Your task to perform on an android device: Empty the shopping cart on amazon.com. Image 0: 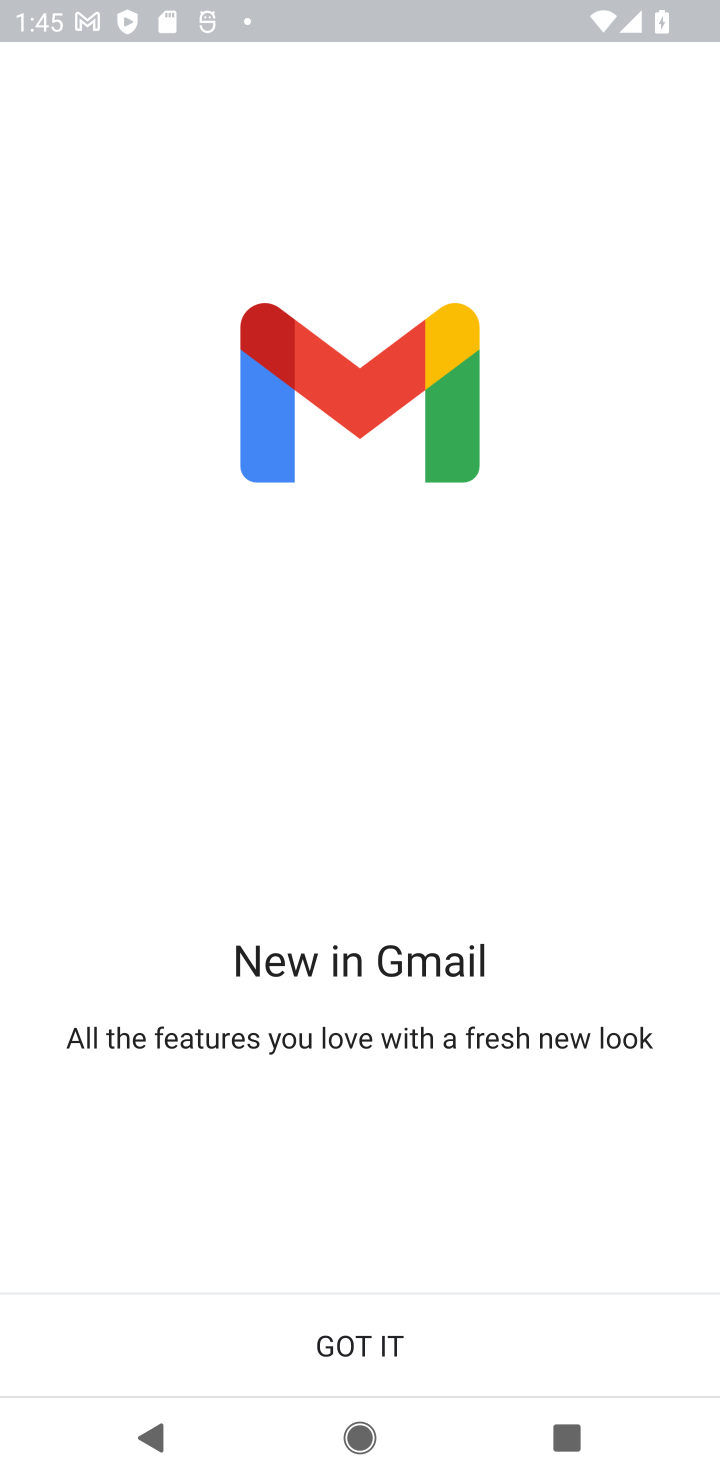
Step 0: press home button
Your task to perform on an android device: Empty the shopping cart on amazon.com. Image 1: 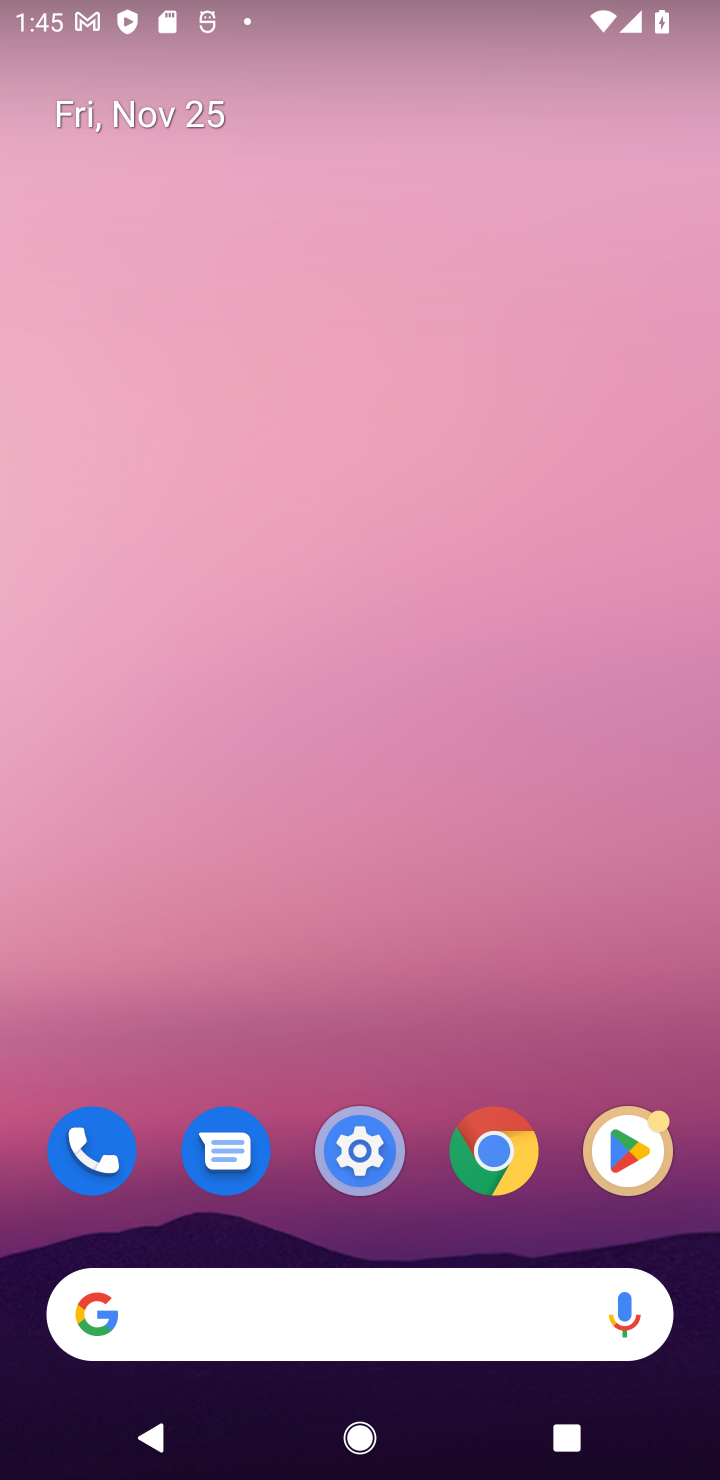
Step 1: click (396, 1338)
Your task to perform on an android device: Empty the shopping cart on amazon.com. Image 2: 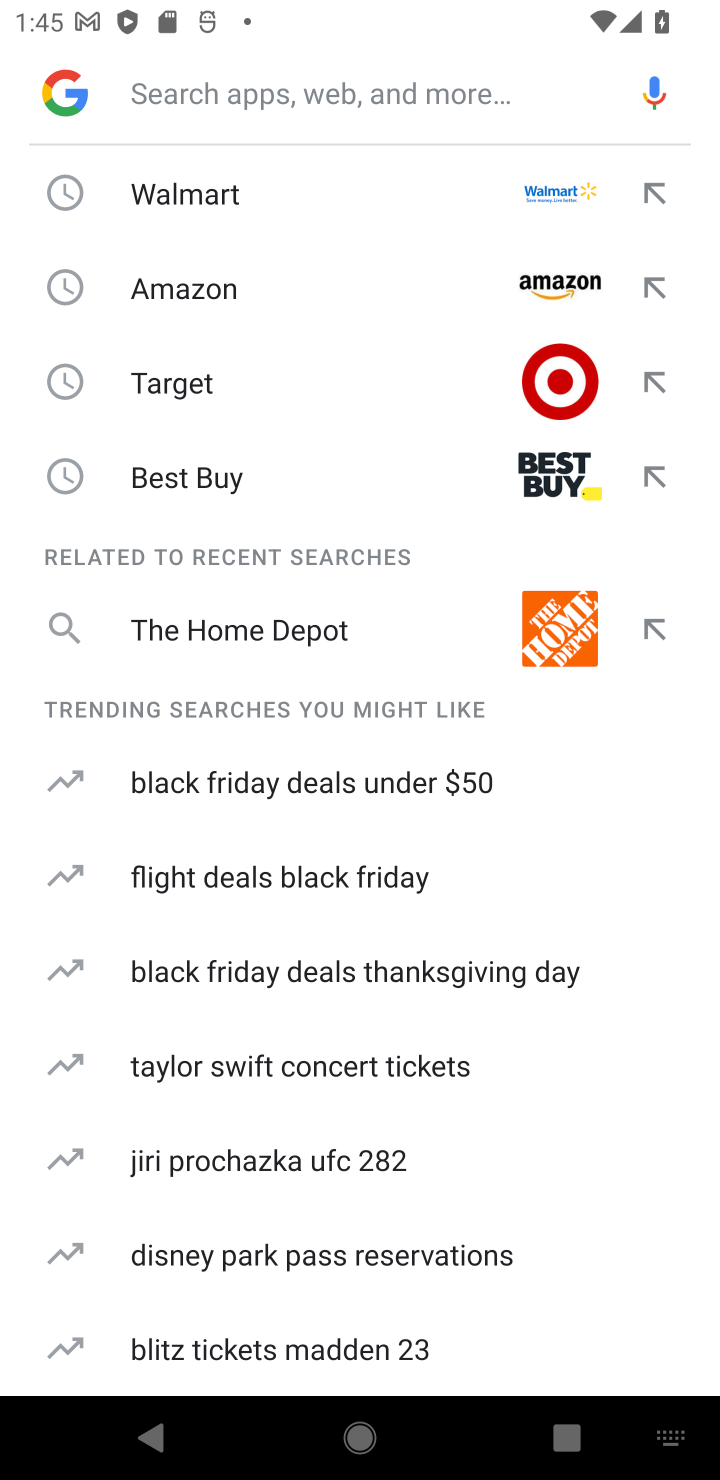
Step 2: click (183, 291)
Your task to perform on an android device: Empty the shopping cart on amazon.com. Image 3: 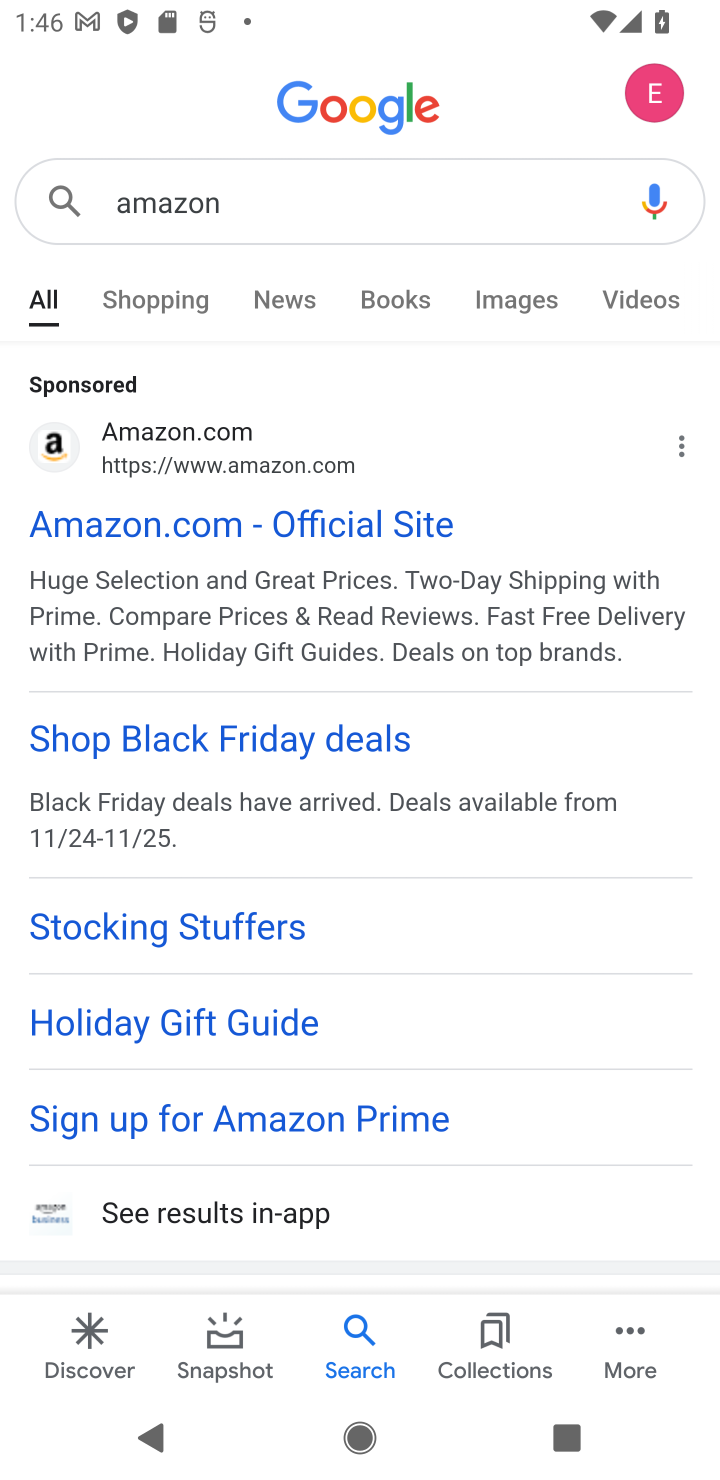
Step 3: click (276, 515)
Your task to perform on an android device: Empty the shopping cart on amazon.com. Image 4: 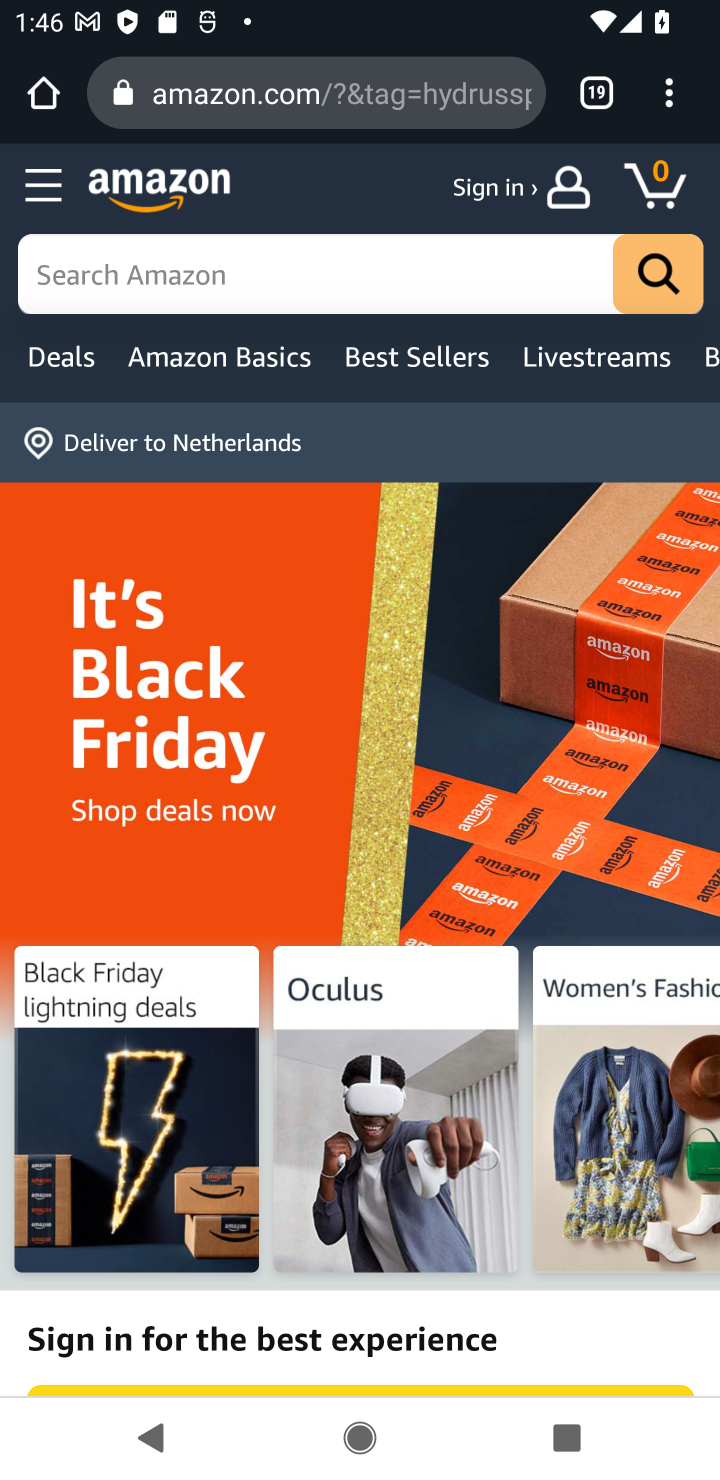
Step 4: click (334, 245)
Your task to perform on an android device: Empty the shopping cart on amazon.com. Image 5: 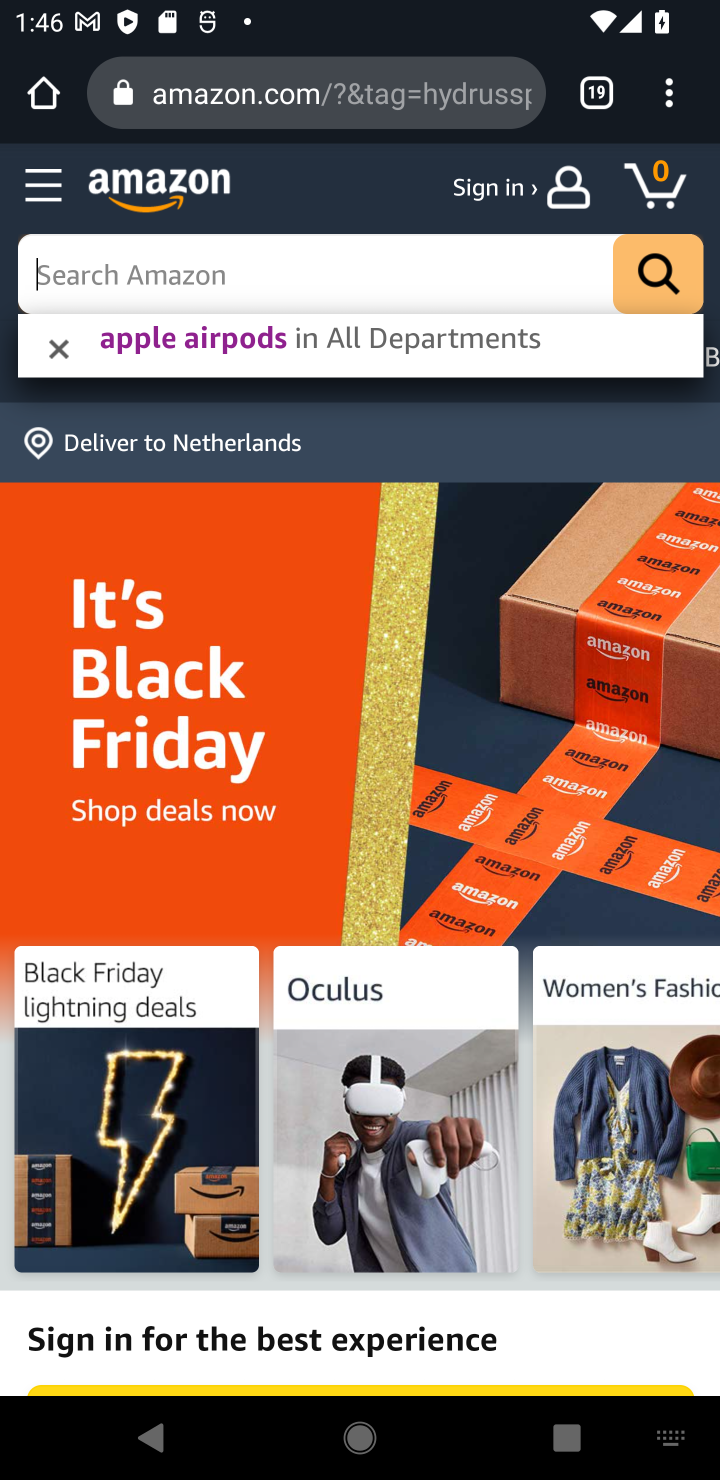
Step 5: click (656, 185)
Your task to perform on an android device: Empty the shopping cart on amazon.com. Image 6: 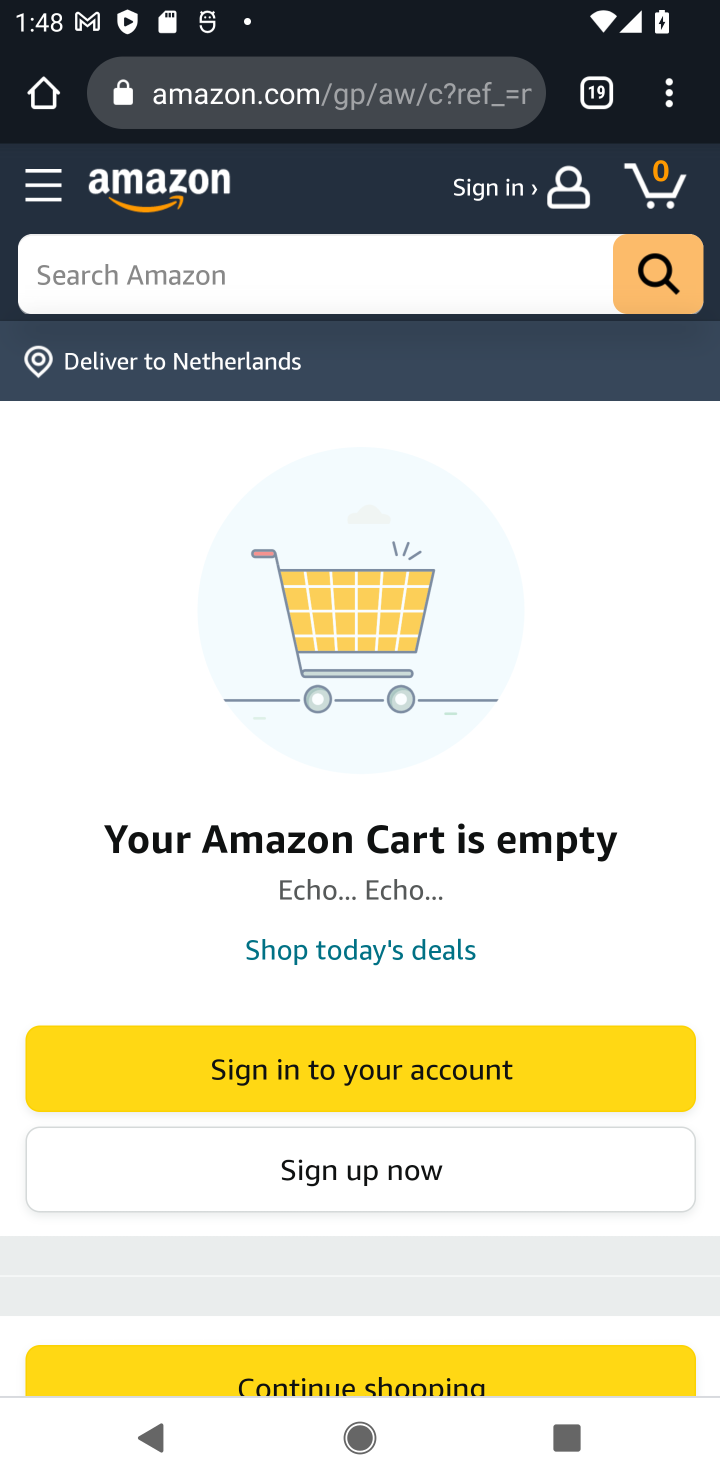
Step 6: press home button
Your task to perform on an android device: Empty the shopping cart on amazon.com. Image 7: 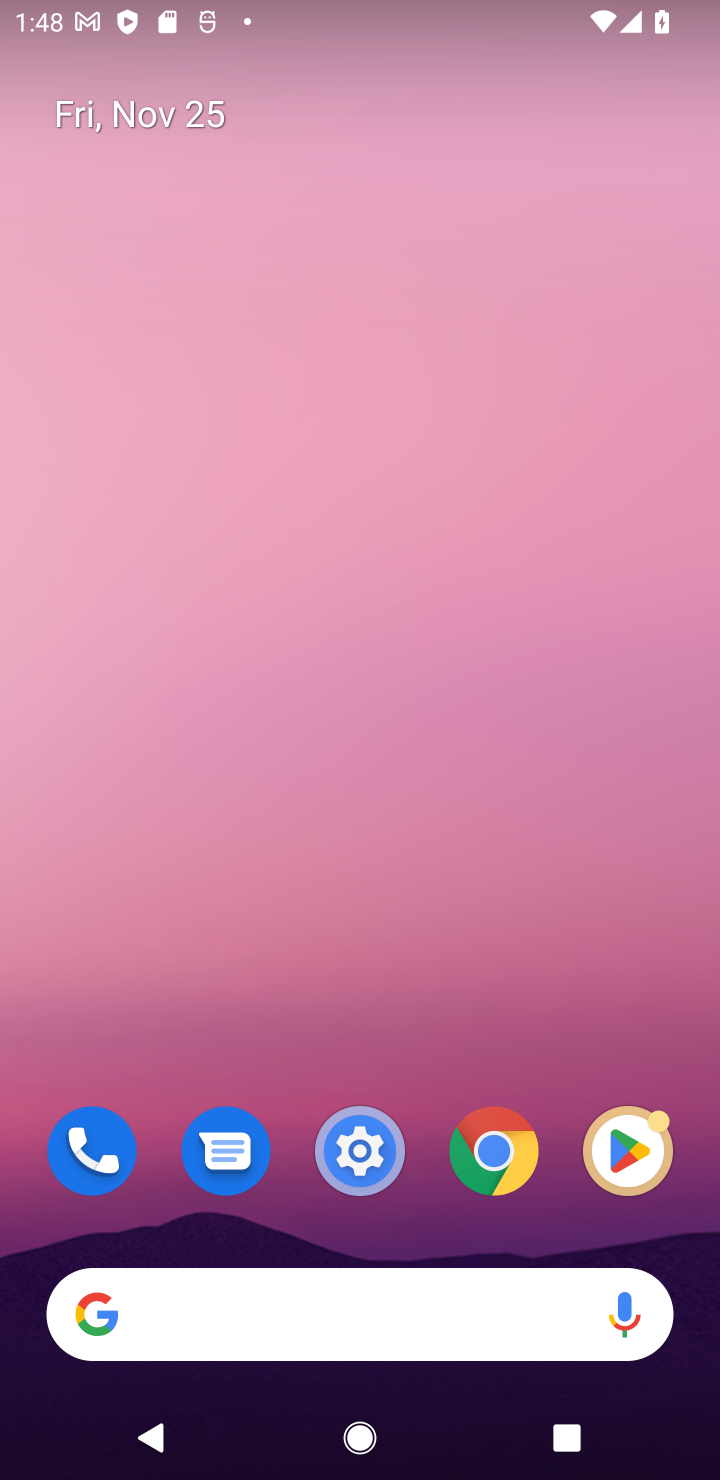
Step 7: click (471, 1300)
Your task to perform on an android device: Empty the shopping cart on amazon.com. Image 8: 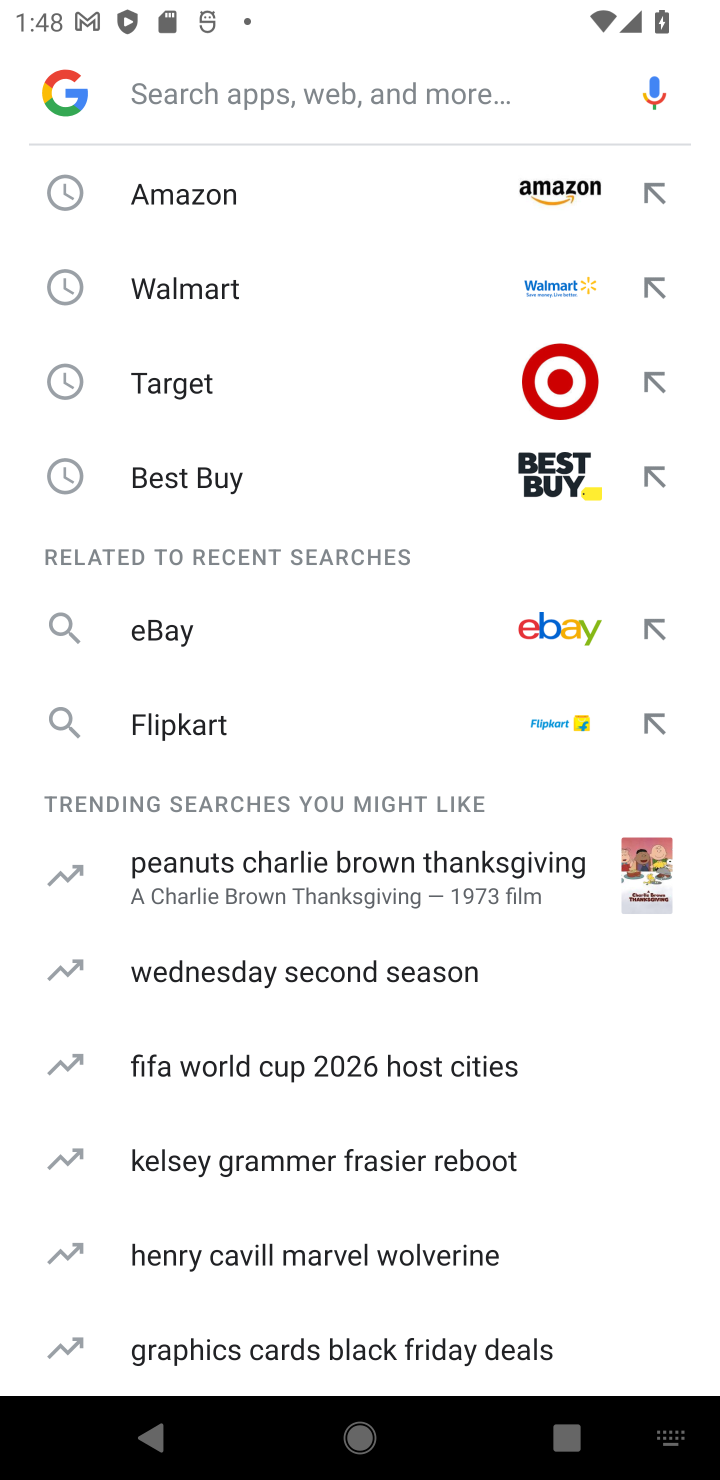
Step 8: type "amazonn.com"
Your task to perform on an android device: Empty the shopping cart on amazon.com. Image 9: 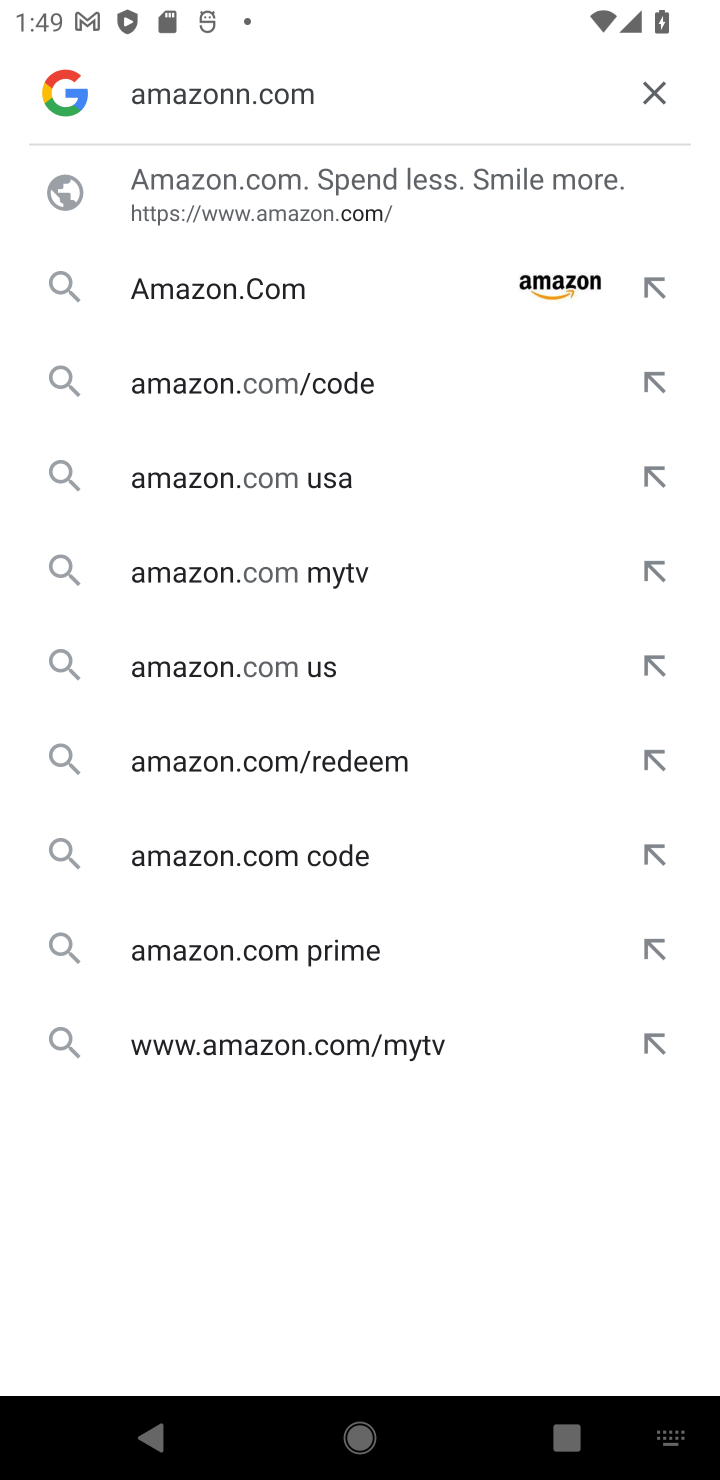
Step 9: click (230, 190)
Your task to perform on an android device: Empty the shopping cart on amazon.com. Image 10: 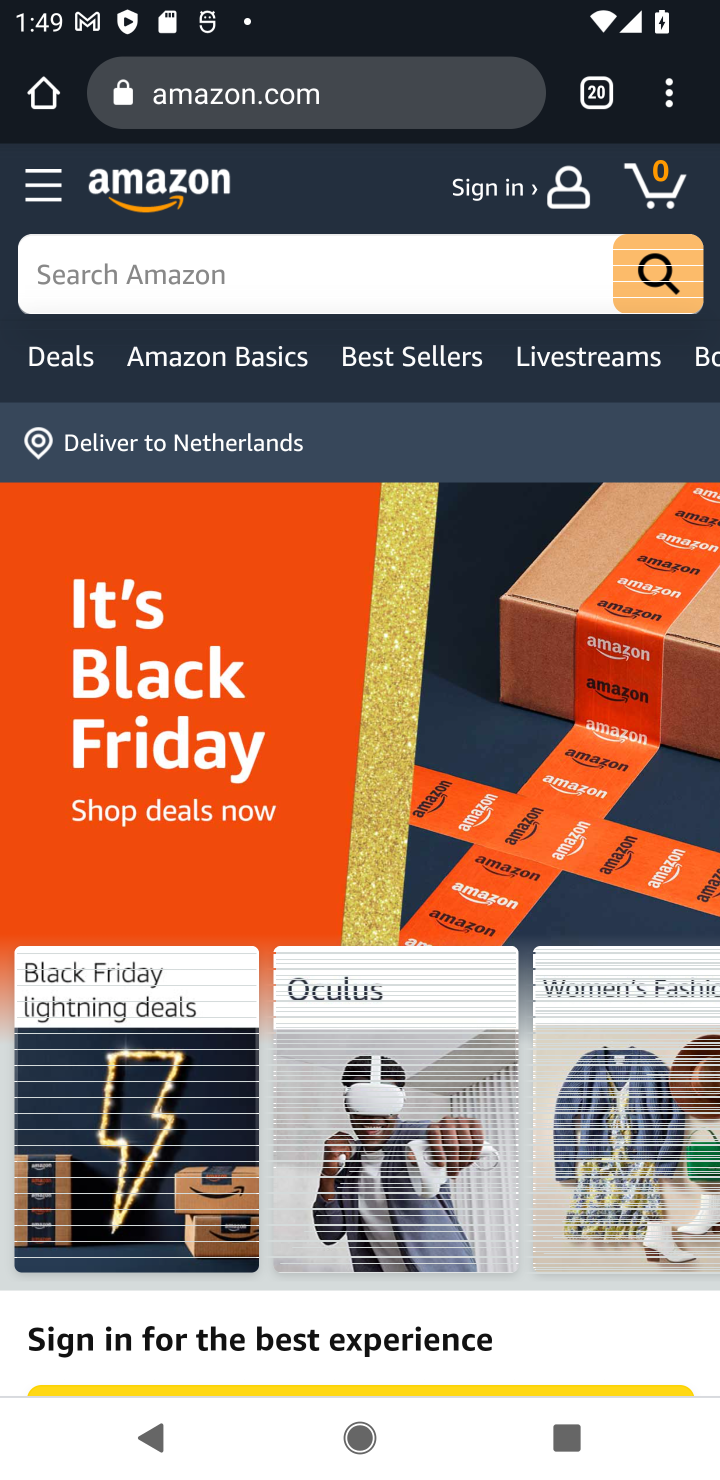
Step 10: click (274, 290)
Your task to perform on an android device: Empty the shopping cart on amazon.com. Image 11: 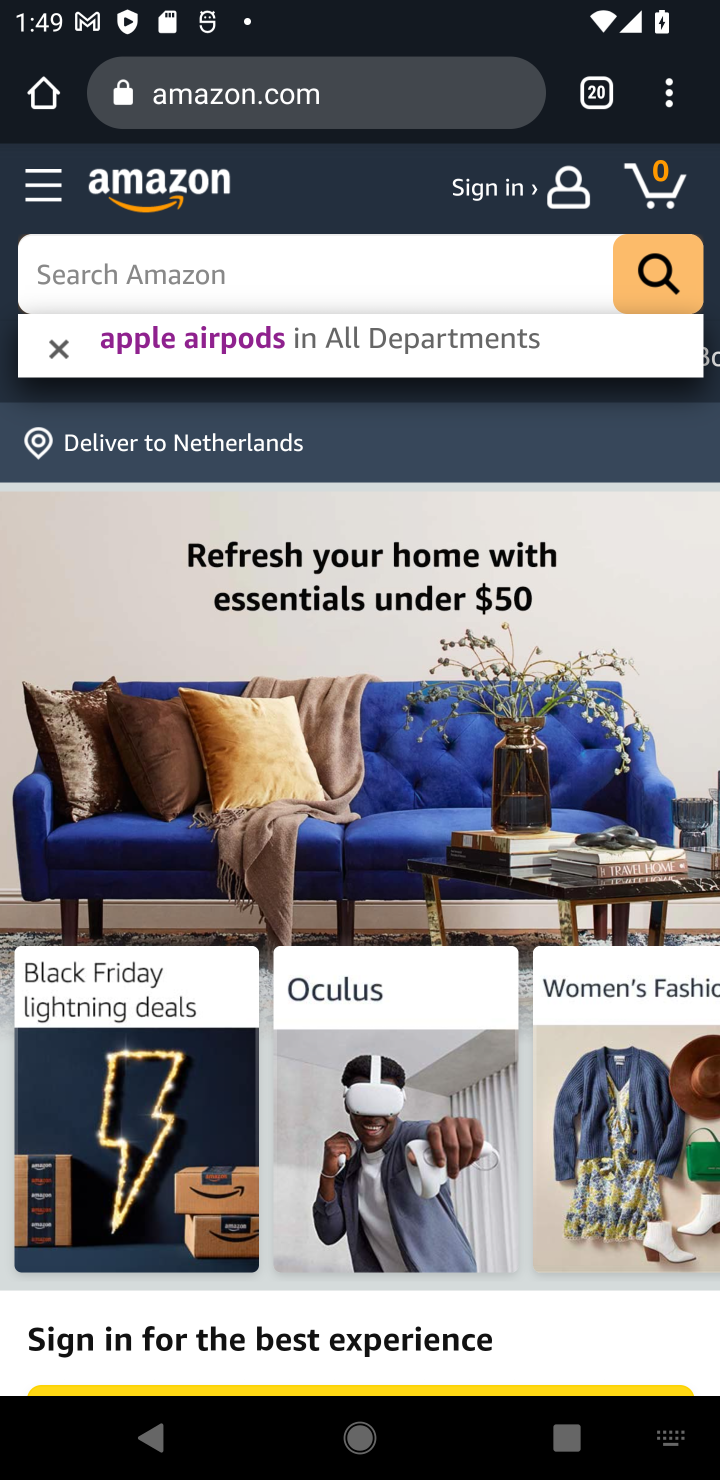
Step 11: click (644, 168)
Your task to perform on an android device: Empty the shopping cart on amazon.com. Image 12: 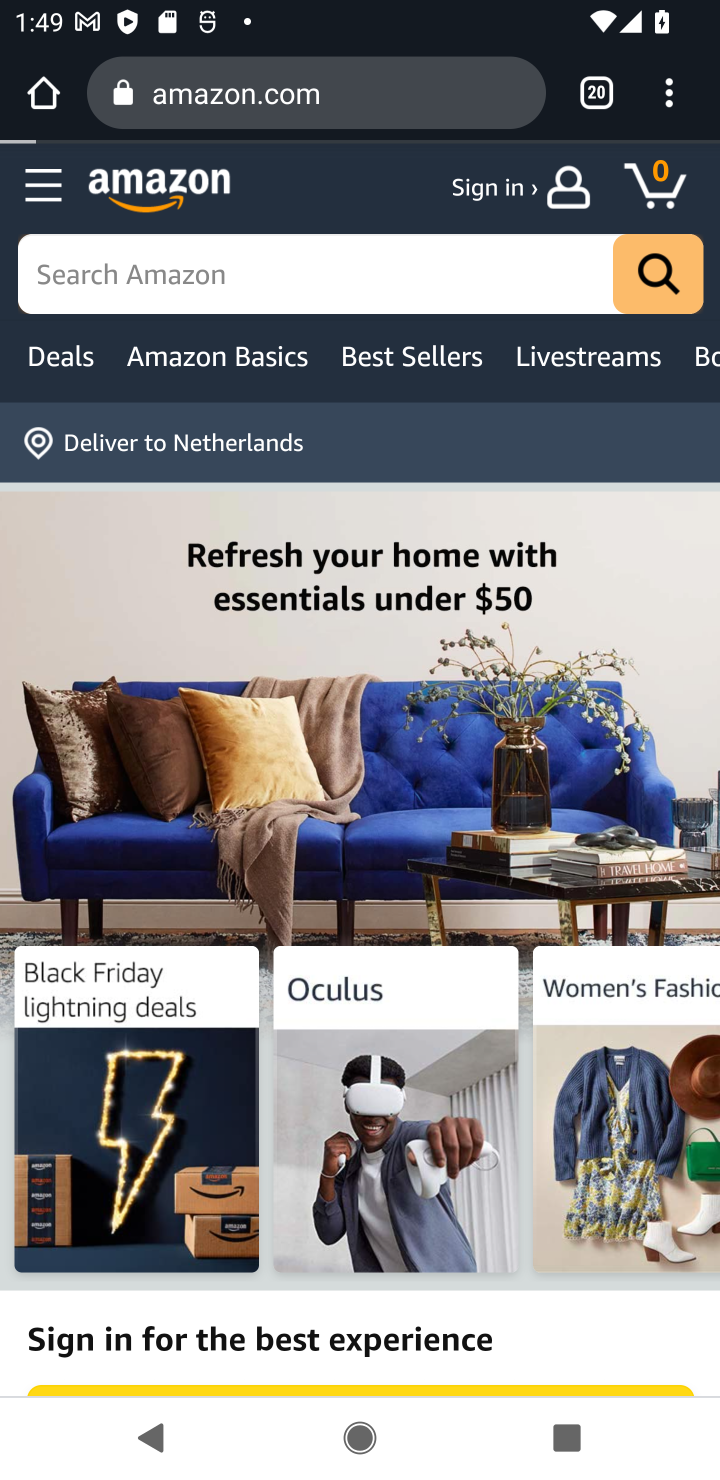
Step 12: task complete